Your task to perform on an android device: Clear the shopping cart on newegg.com. Search for sony triple a on newegg.com, select the first entry, add it to the cart, then select checkout. Image 0: 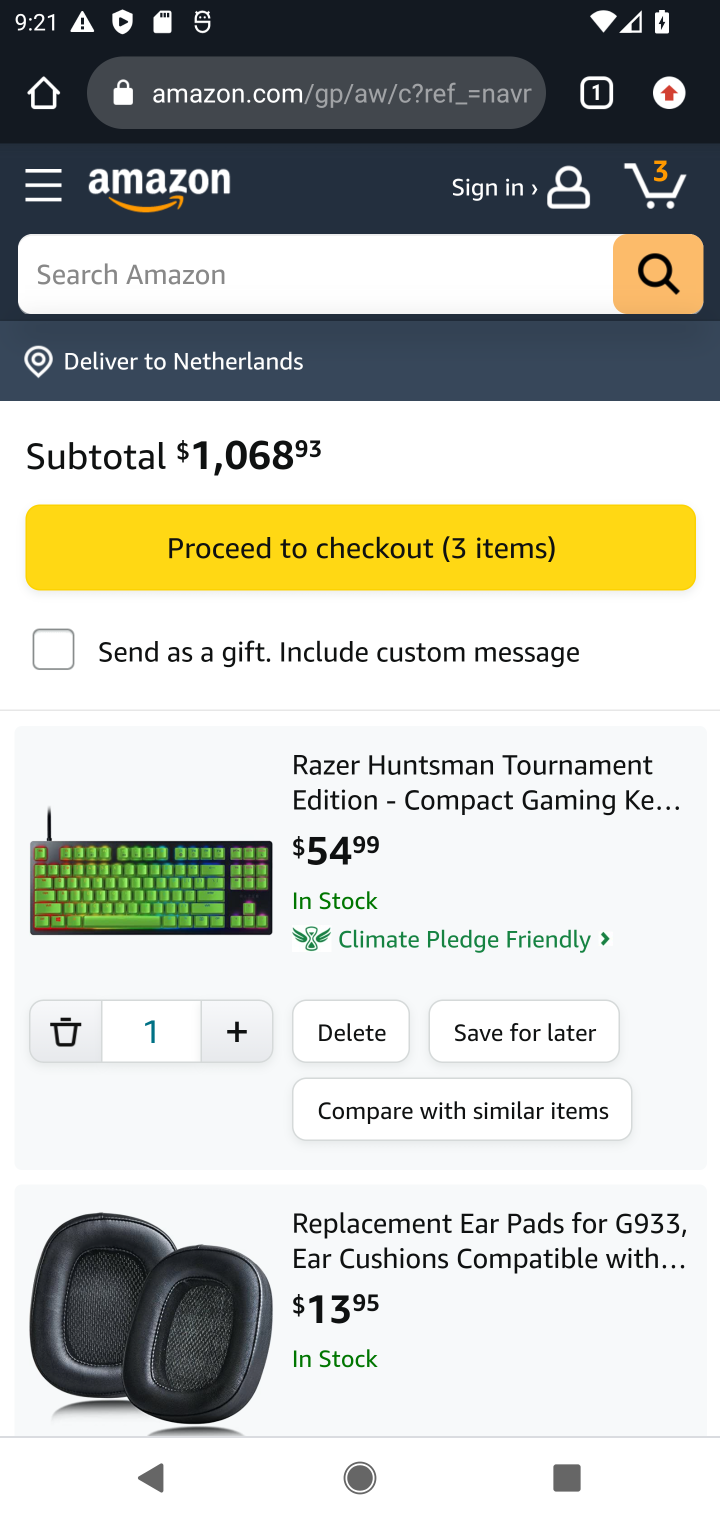
Step 0: click (256, 100)
Your task to perform on an android device: Clear the shopping cart on newegg.com. Search for sony triple a on newegg.com, select the first entry, add it to the cart, then select checkout. Image 1: 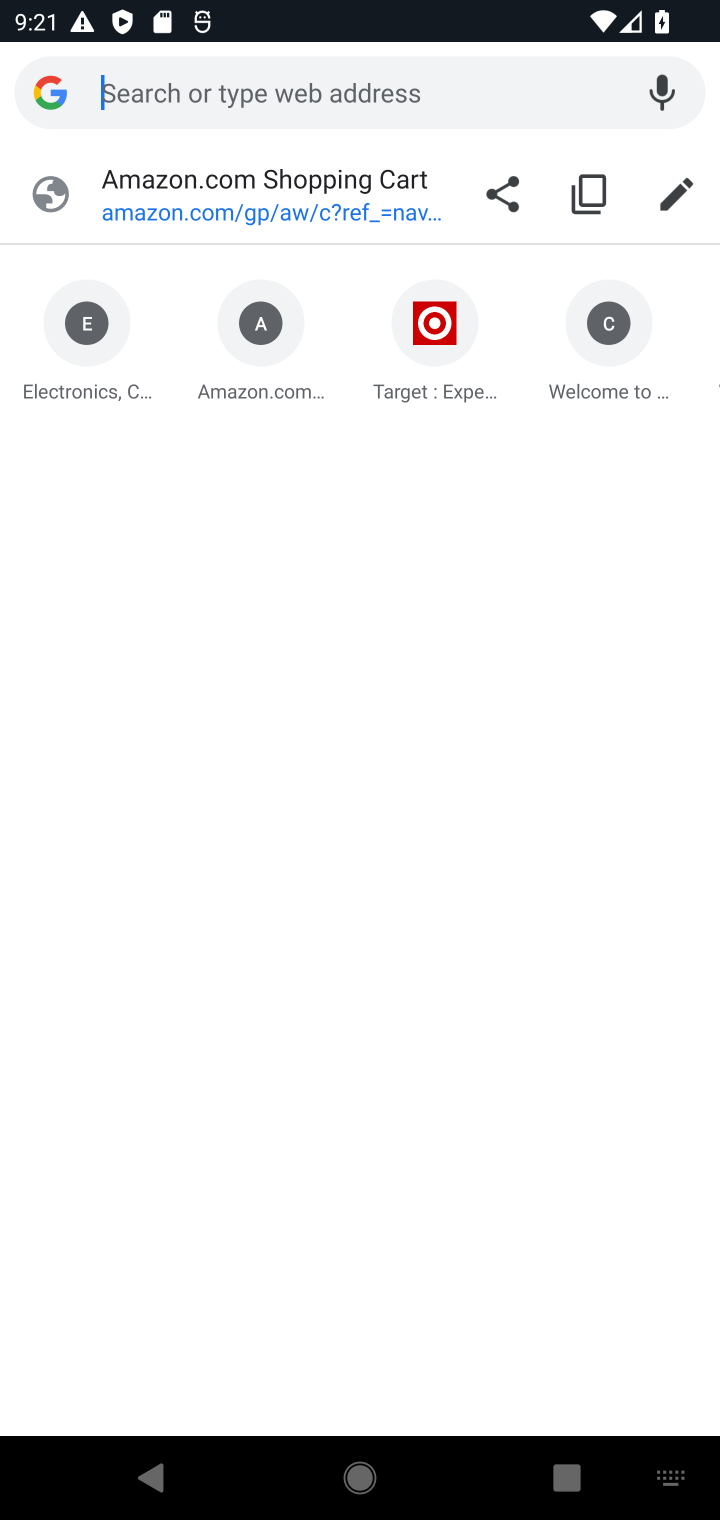
Step 1: type " newegg.com"
Your task to perform on an android device: Clear the shopping cart on newegg.com. Search for sony triple a on newegg.com, select the first entry, add it to the cart, then select checkout. Image 2: 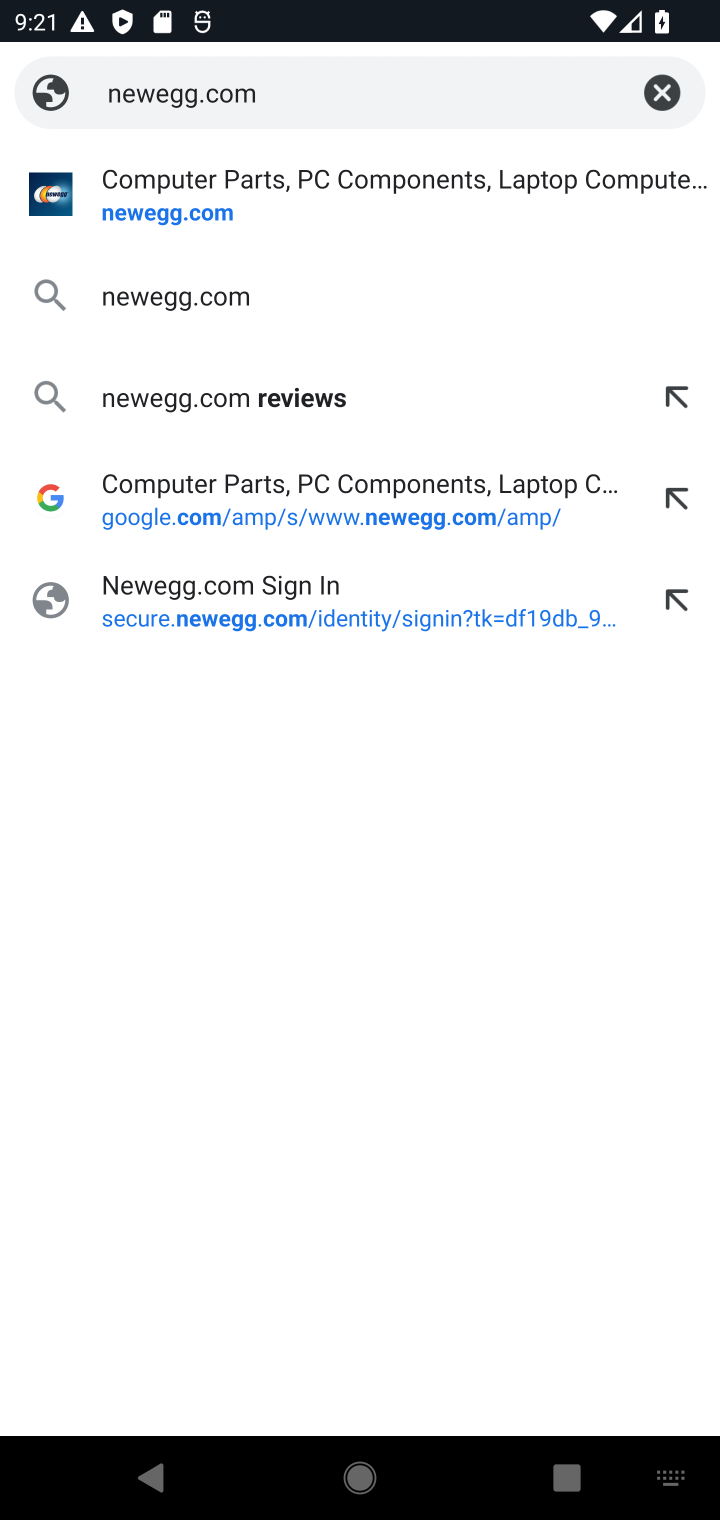
Step 2: click (160, 315)
Your task to perform on an android device: Clear the shopping cart on newegg.com. Search for sony triple a on newegg.com, select the first entry, add it to the cart, then select checkout. Image 3: 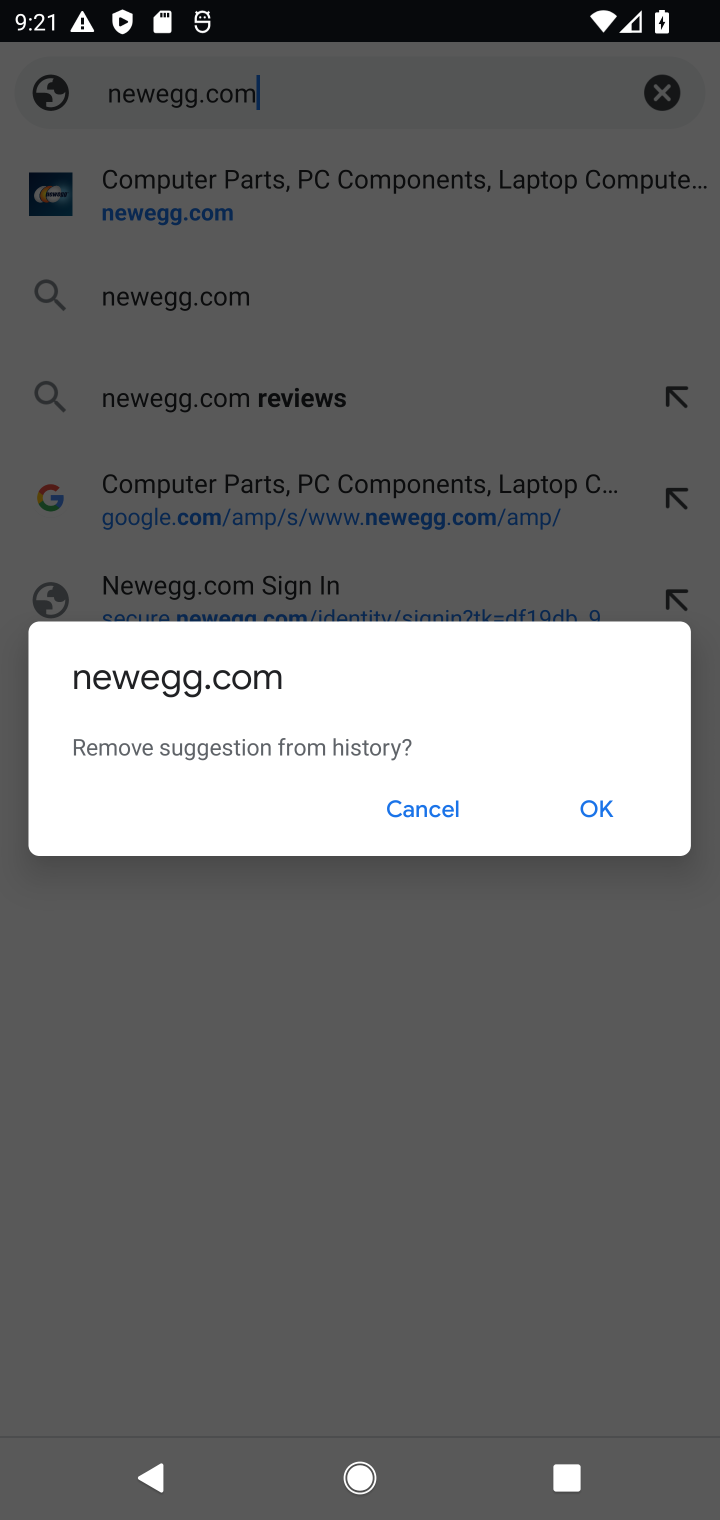
Step 3: click (427, 808)
Your task to perform on an android device: Clear the shopping cart on newegg.com. Search for sony triple a on newegg.com, select the first entry, add it to the cart, then select checkout. Image 4: 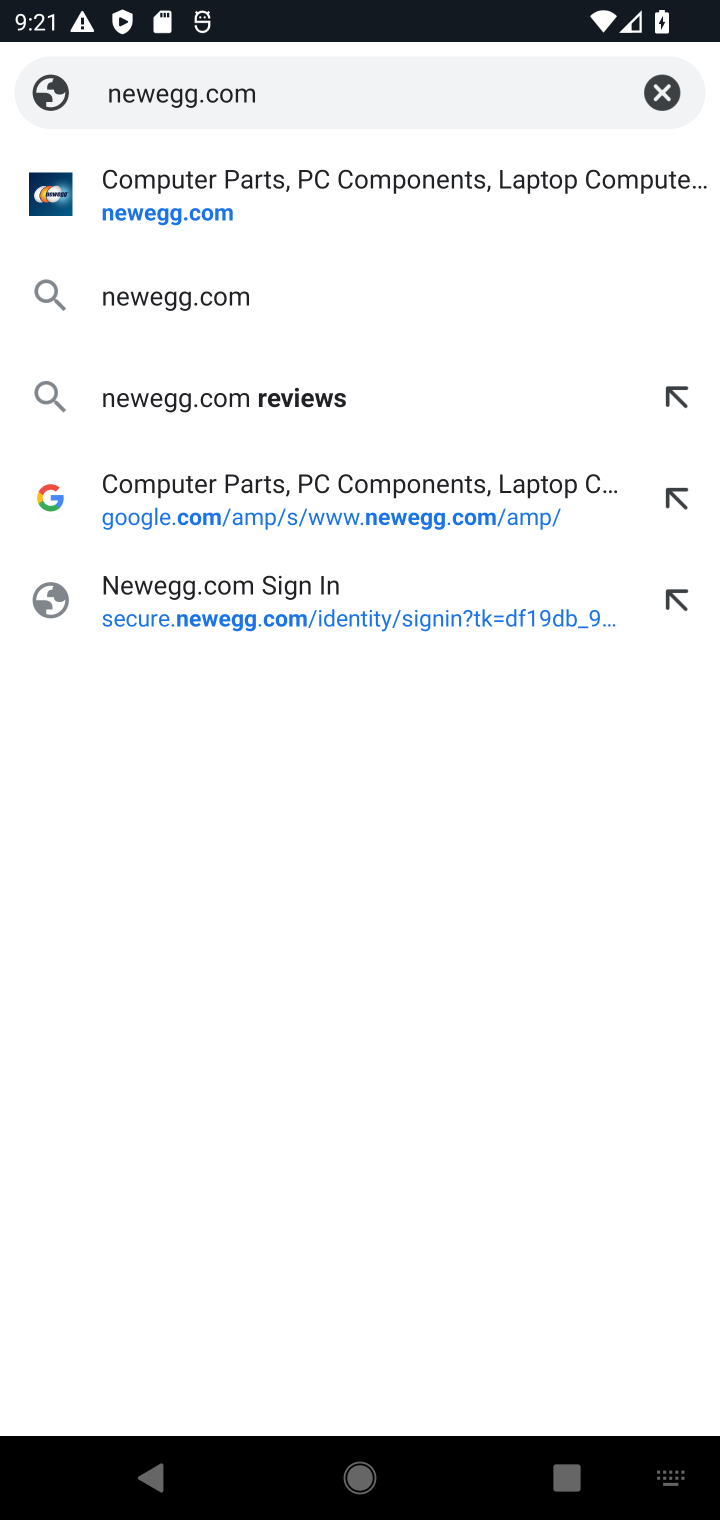
Step 4: click (148, 317)
Your task to perform on an android device: Clear the shopping cart on newegg.com. Search for sony triple a on newegg.com, select the first entry, add it to the cart, then select checkout. Image 5: 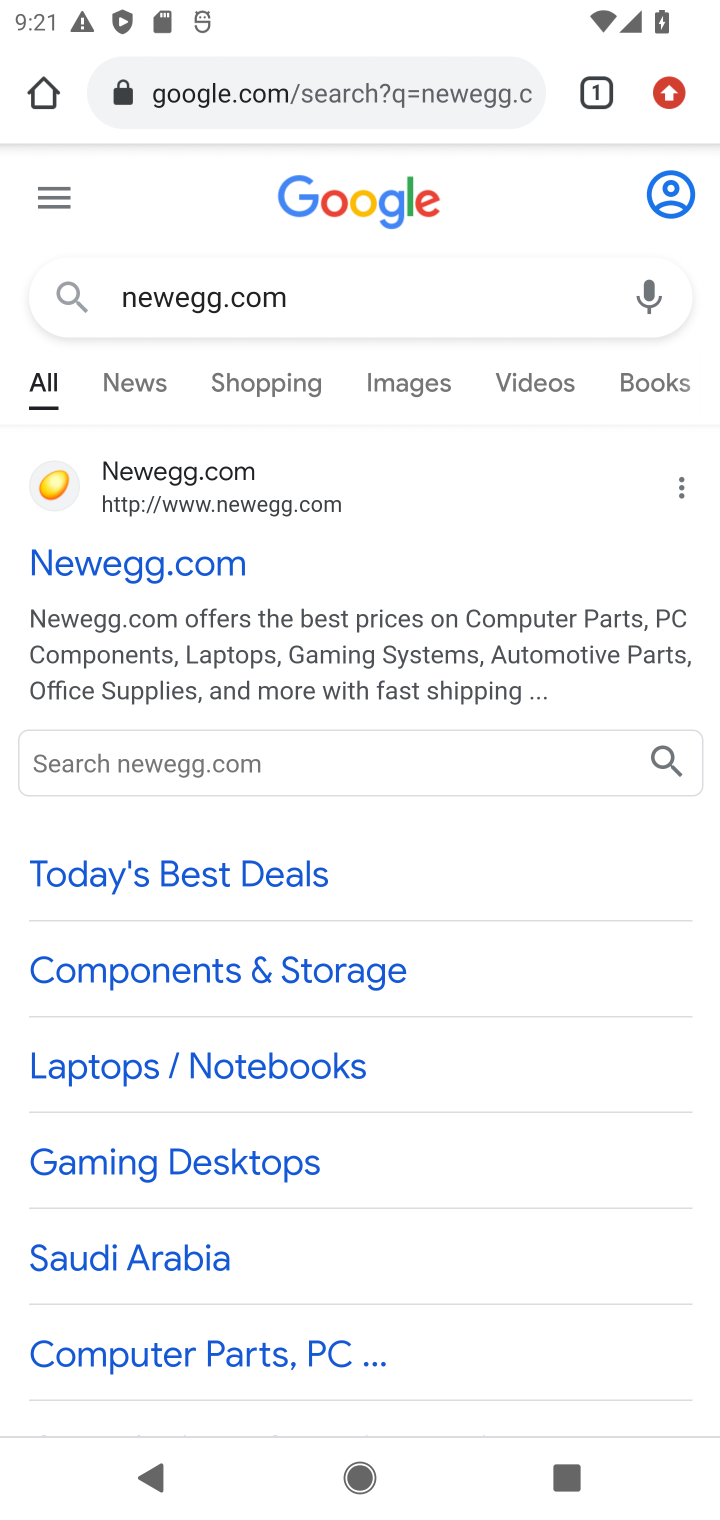
Step 5: click (127, 569)
Your task to perform on an android device: Clear the shopping cart on newegg.com. Search for sony triple a on newegg.com, select the first entry, add it to the cart, then select checkout. Image 6: 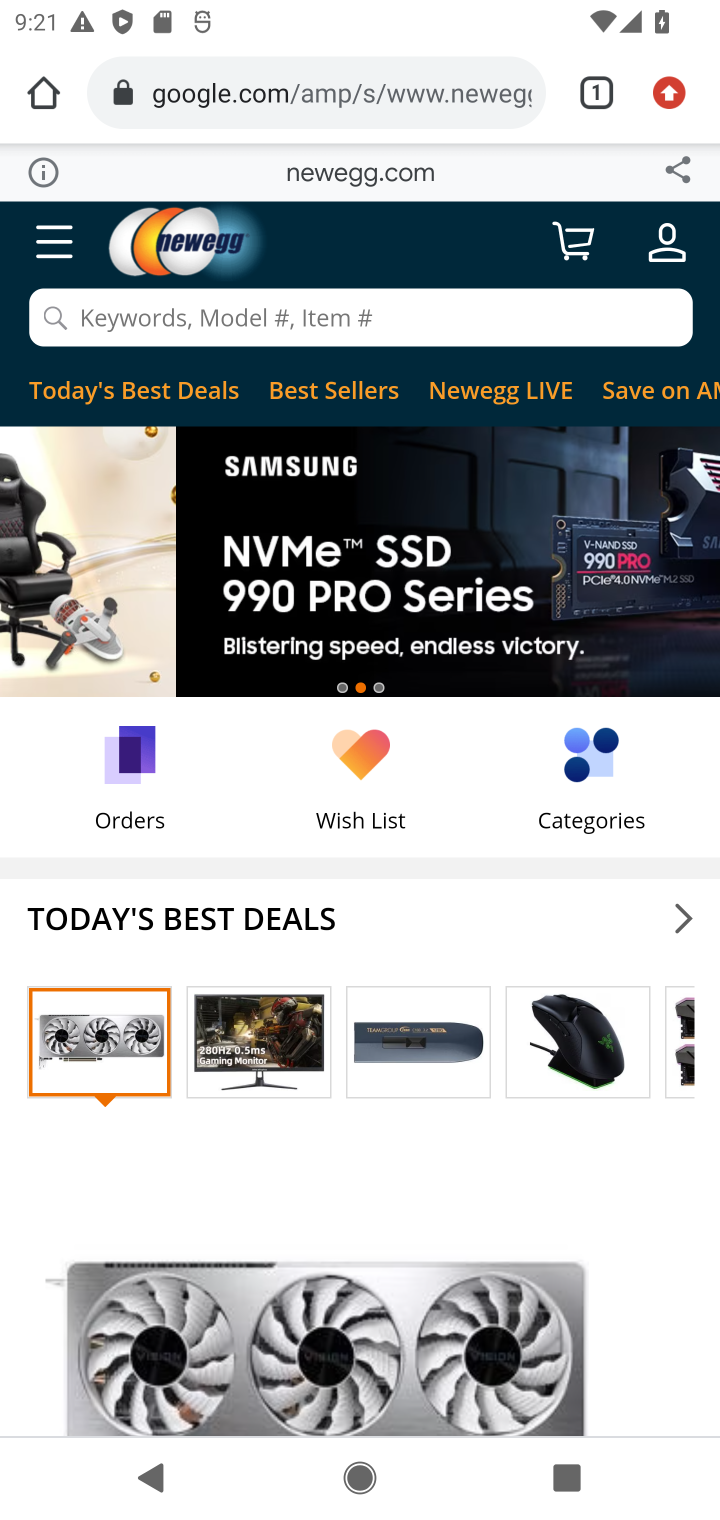
Step 6: click (585, 241)
Your task to perform on an android device: Clear the shopping cart on newegg.com. Search for sony triple a on newegg.com, select the first entry, add it to the cart, then select checkout. Image 7: 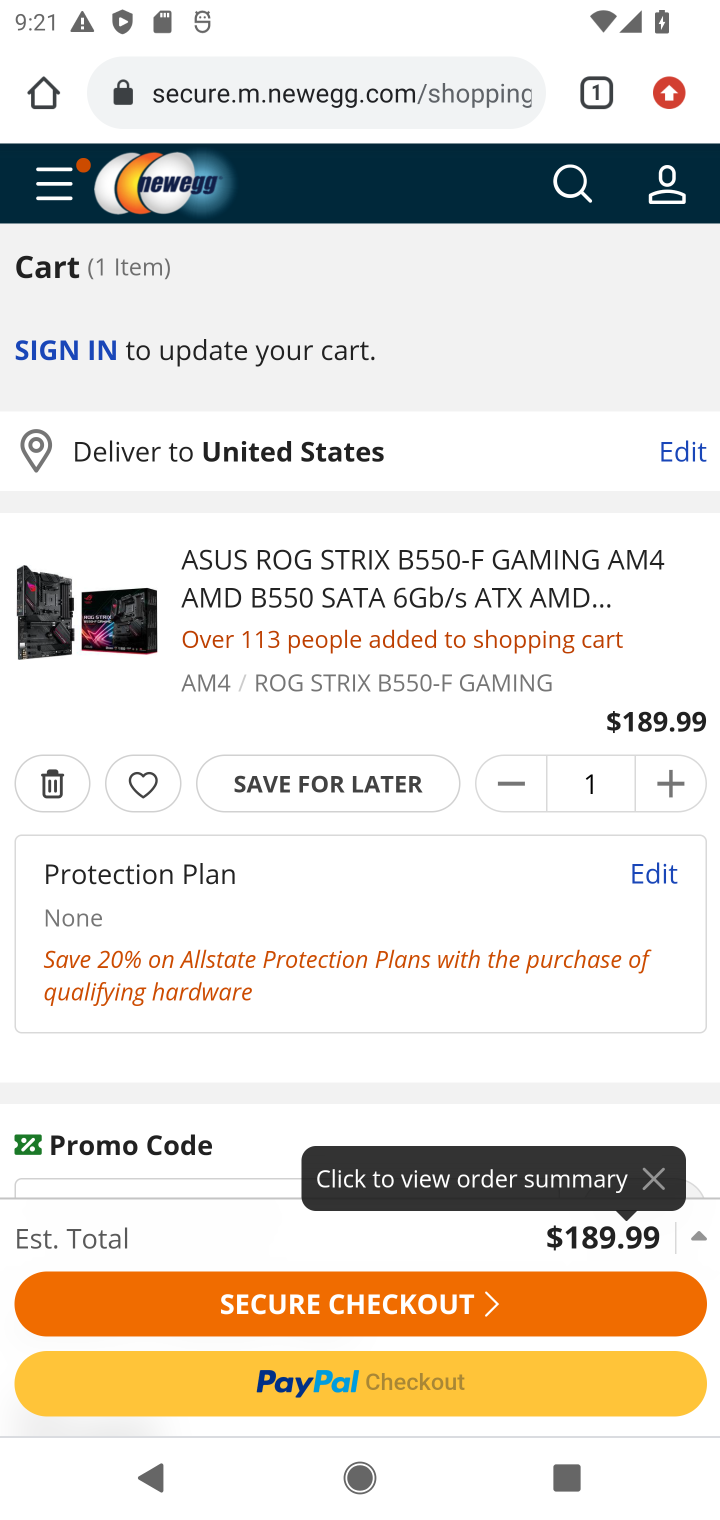
Step 7: click (53, 781)
Your task to perform on an android device: Clear the shopping cart on newegg.com. Search for sony triple a on newegg.com, select the first entry, add it to the cart, then select checkout. Image 8: 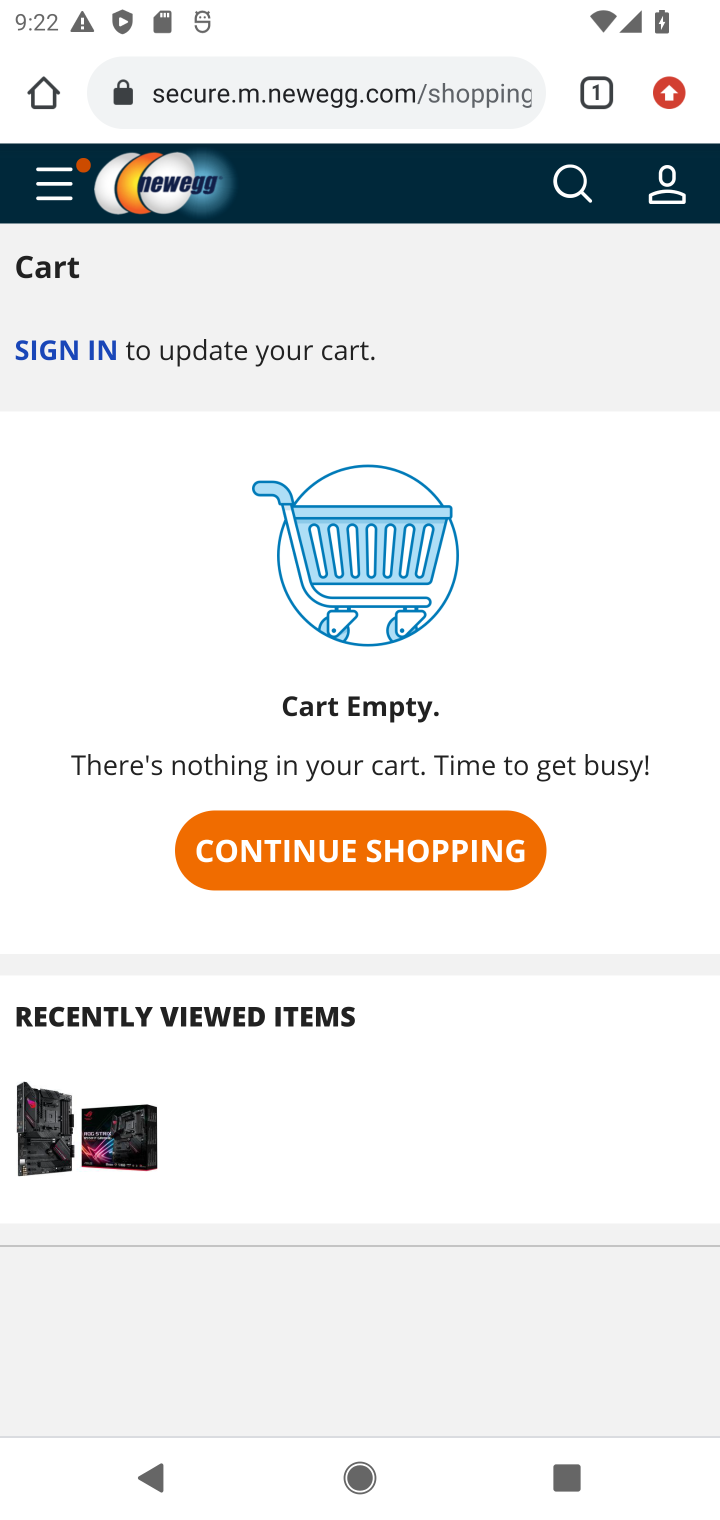
Step 8: click (577, 198)
Your task to perform on an android device: Clear the shopping cart on newegg.com. Search for sony triple a on newegg.com, select the first entry, add it to the cart, then select checkout. Image 9: 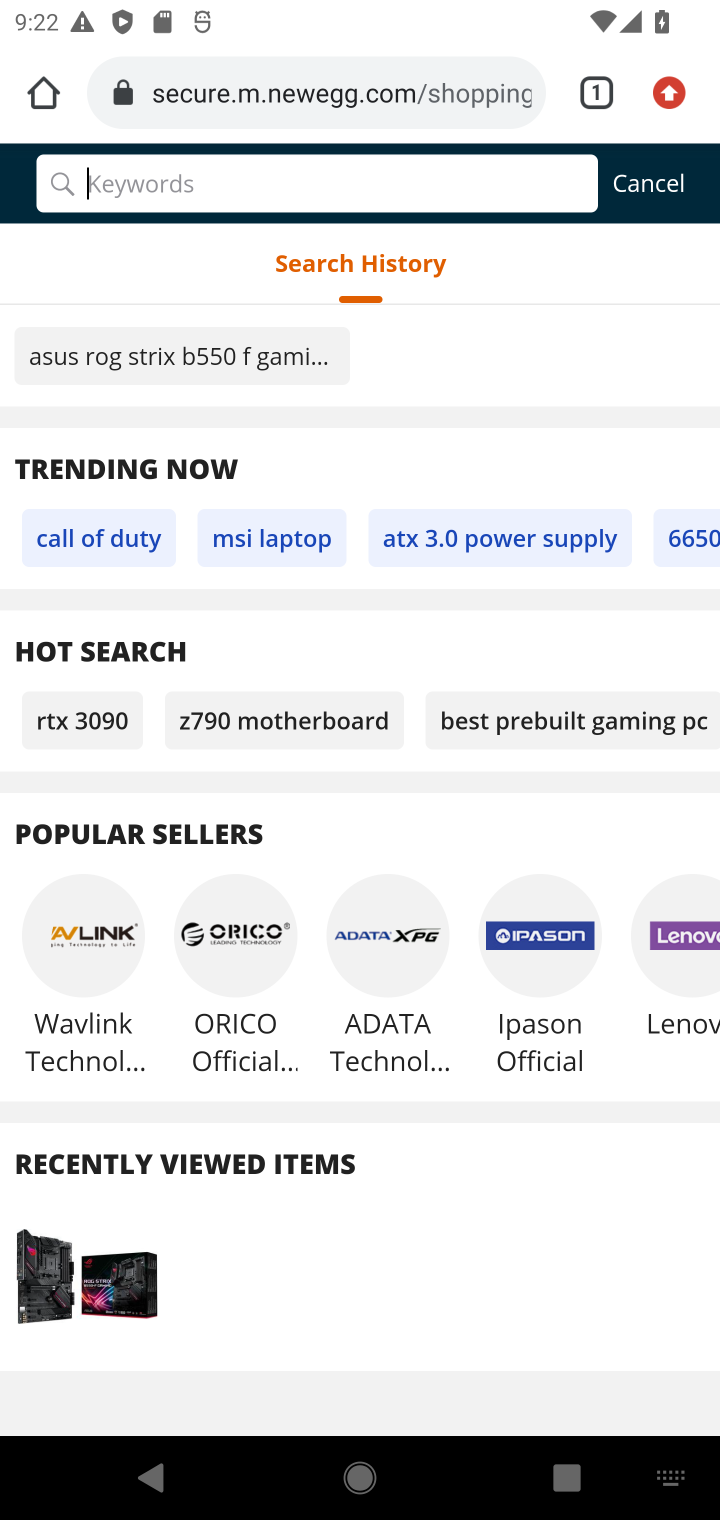
Step 9: type "sony triple a"
Your task to perform on an android device: Clear the shopping cart on newegg.com. Search for sony triple a on newegg.com, select the first entry, add it to the cart, then select checkout. Image 10: 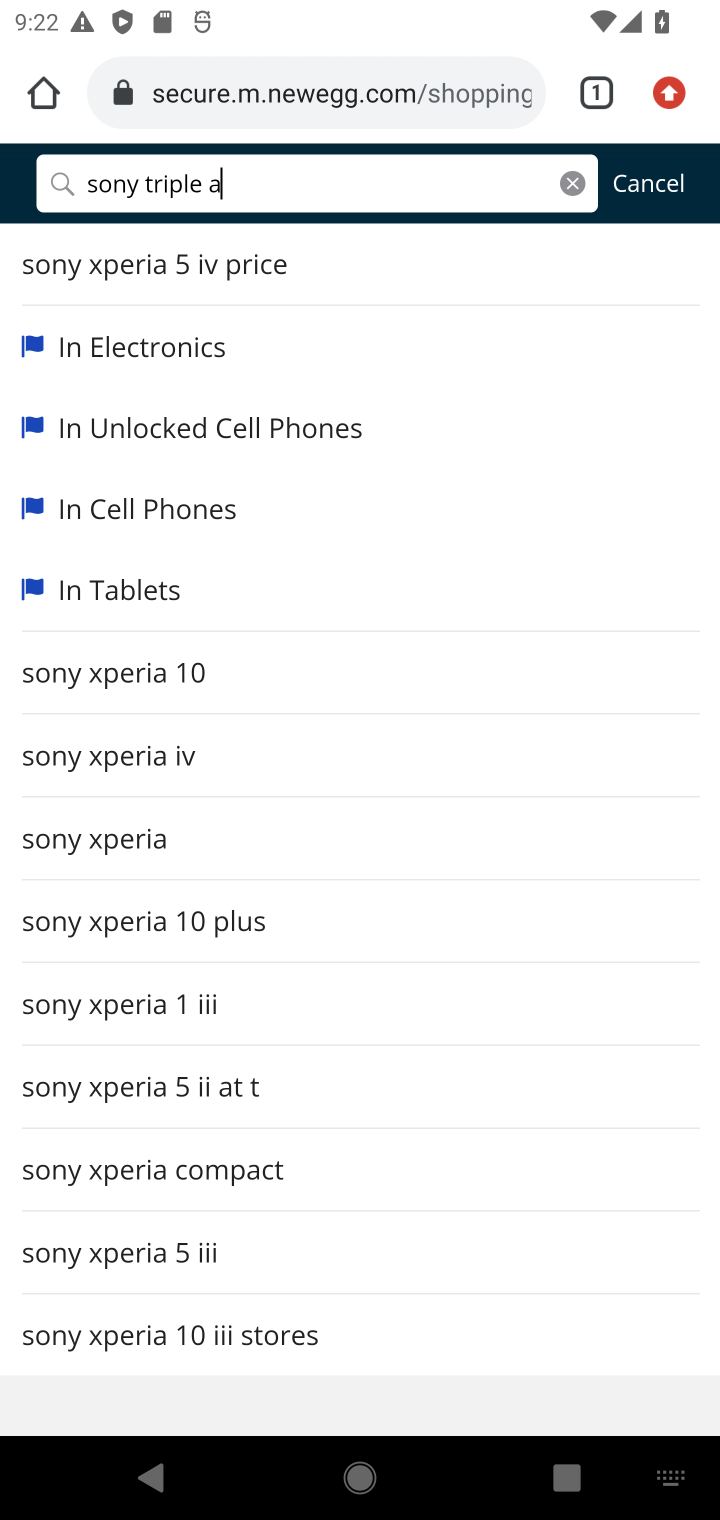
Step 10: click (68, 171)
Your task to perform on an android device: Clear the shopping cart on newegg.com. Search for sony triple a on newegg.com, select the first entry, add it to the cart, then select checkout. Image 11: 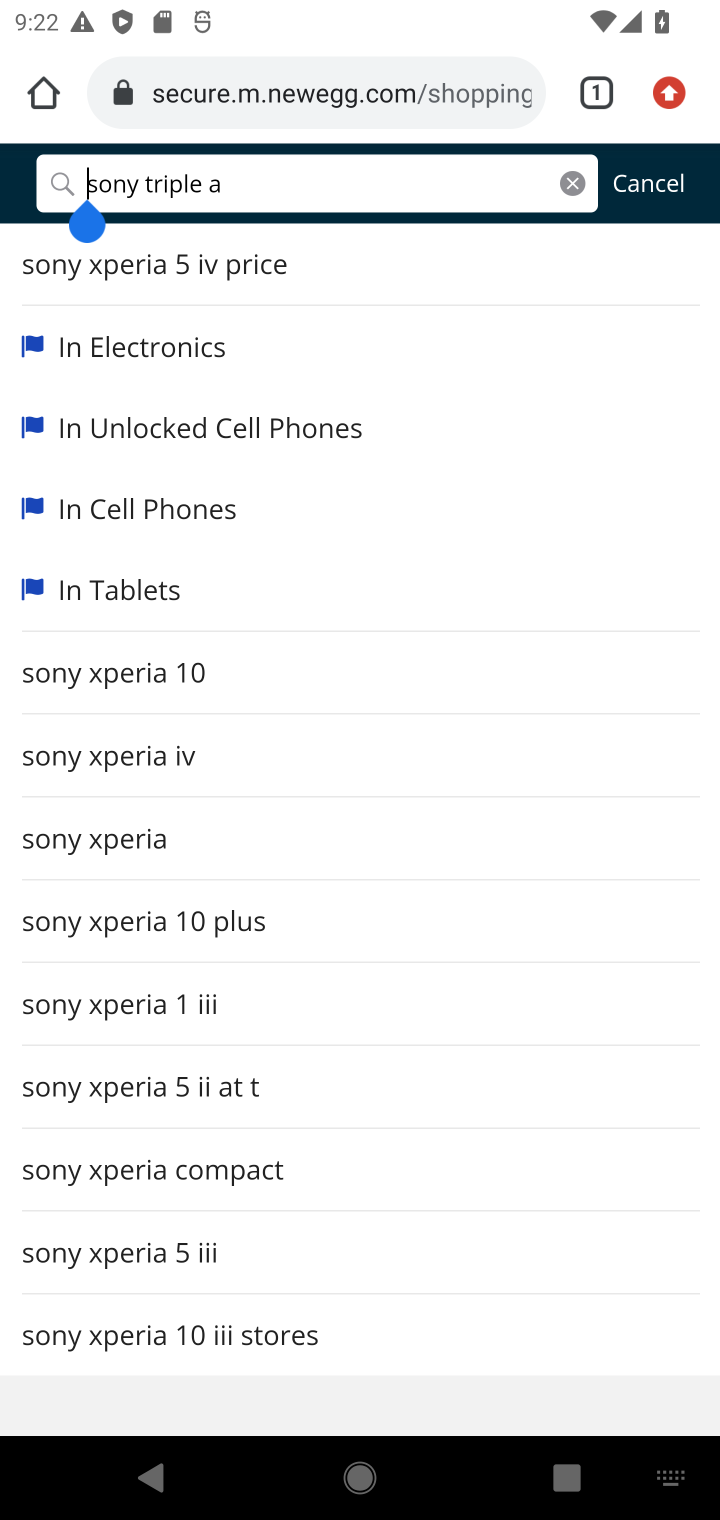
Step 11: click (64, 180)
Your task to perform on an android device: Clear the shopping cart on newegg.com. Search for sony triple a on newegg.com, select the first entry, add it to the cart, then select checkout. Image 12: 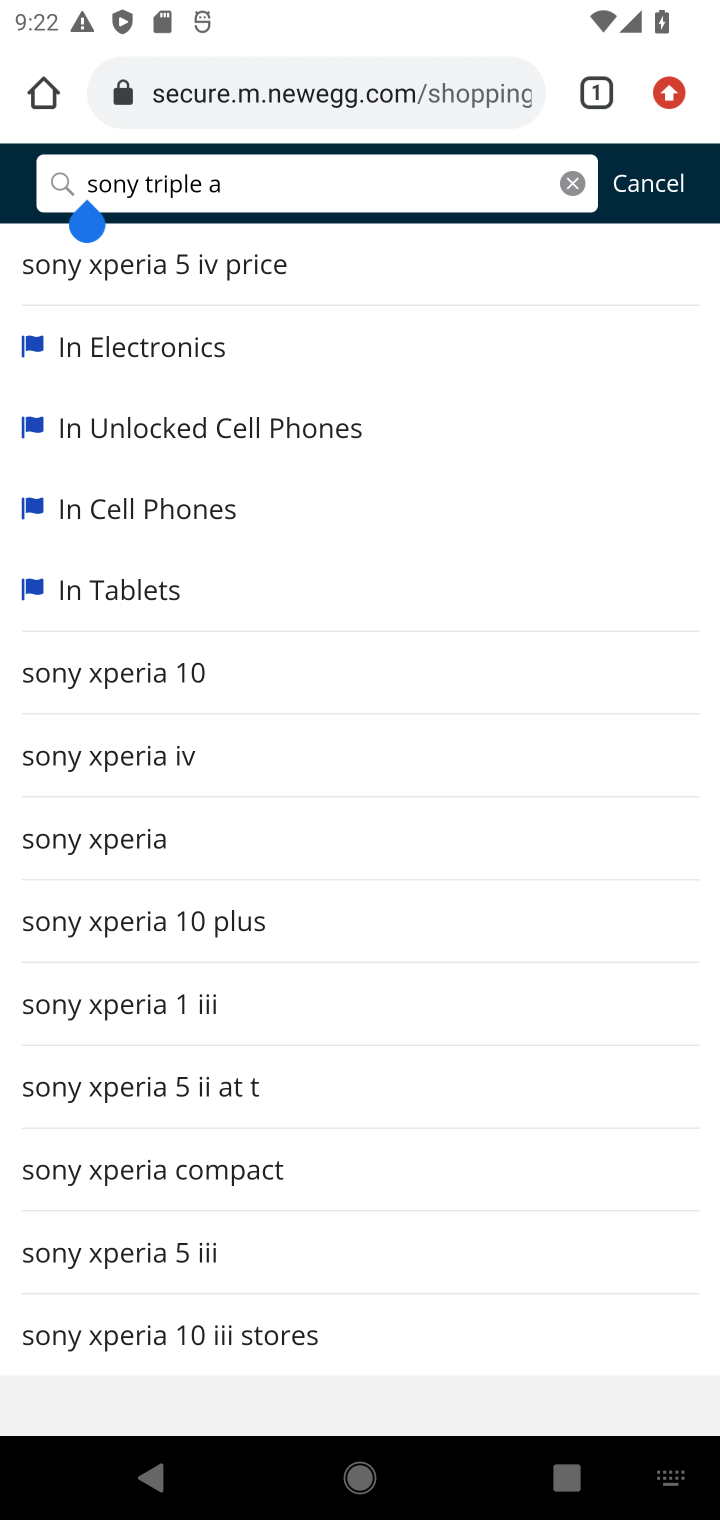
Step 12: click (62, 189)
Your task to perform on an android device: Clear the shopping cart on newegg.com. Search for sony triple a on newegg.com, select the first entry, add it to the cart, then select checkout. Image 13: 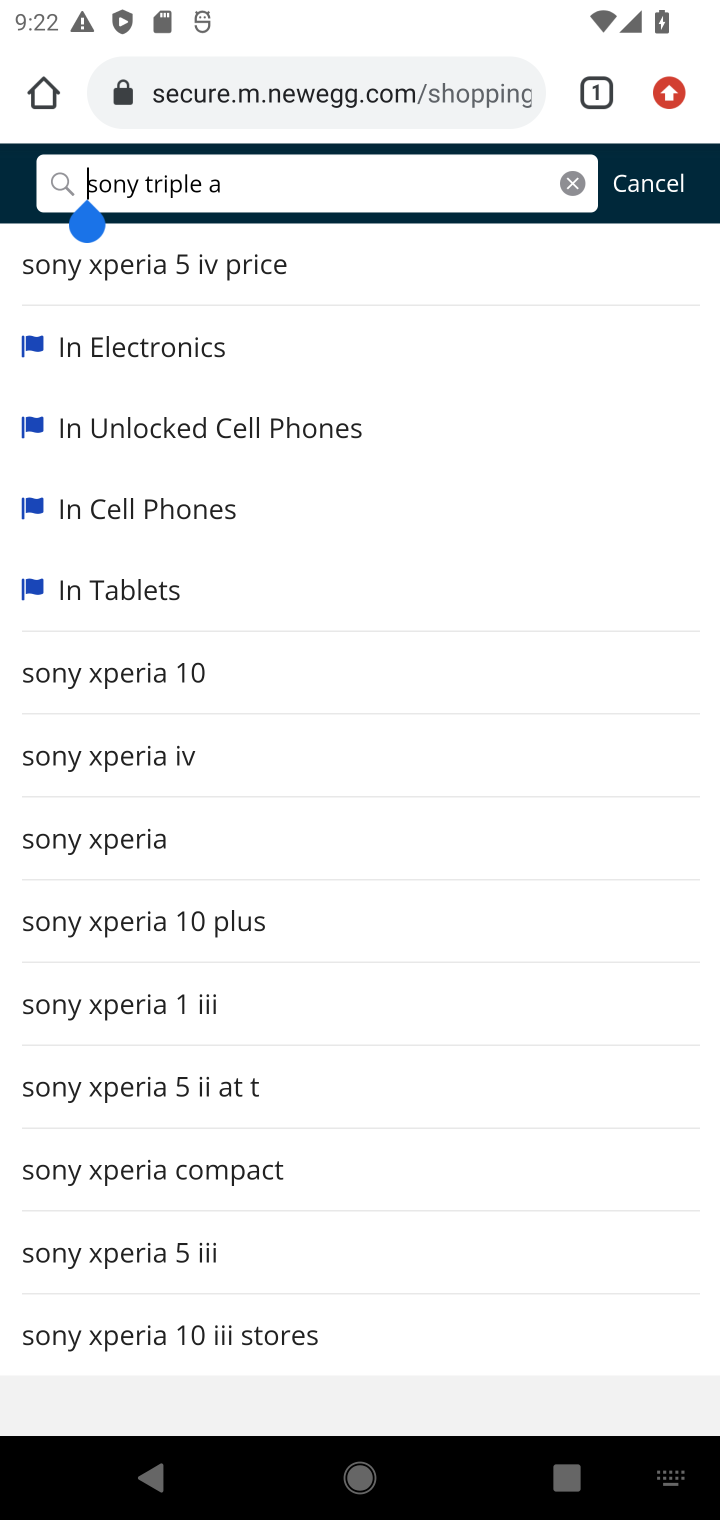
Step 13: task complete